Your task to perform on an android device: Open Wikipedia Image 0: 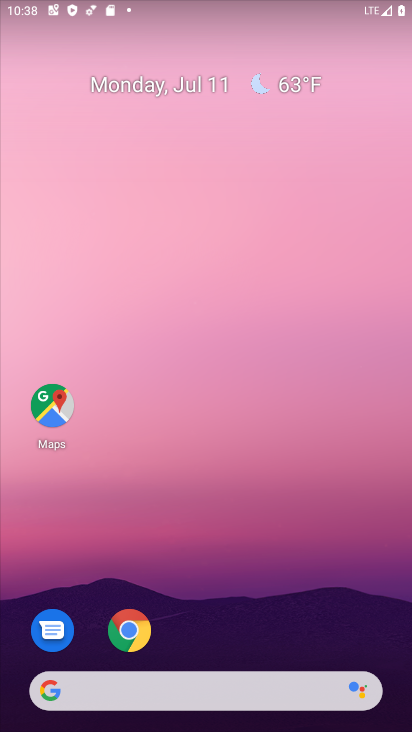
Step 0: click (126, 631)
Your task to perform on an android device: Open Wikipedia Image 1: 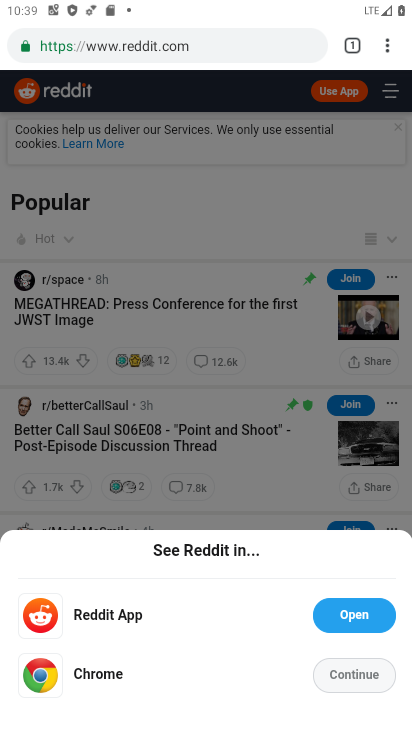
Step 1: click (203, 42)
Your task to perform on an android device: Open Wikipedia Image 2: 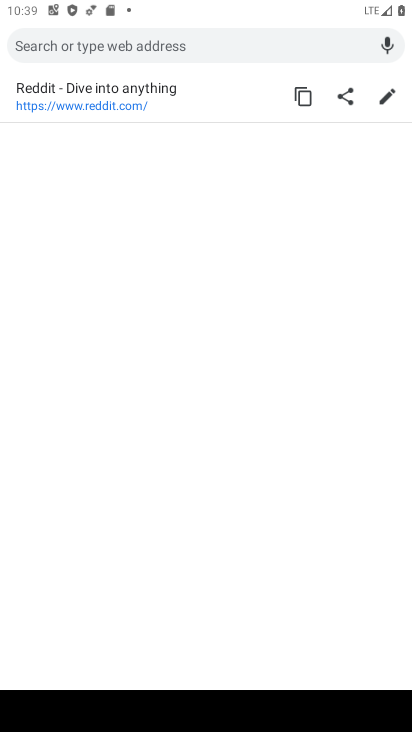
Step 2: type "Wikipedia"
Your task to perform on an android device: Open Wikipedia Image 3: 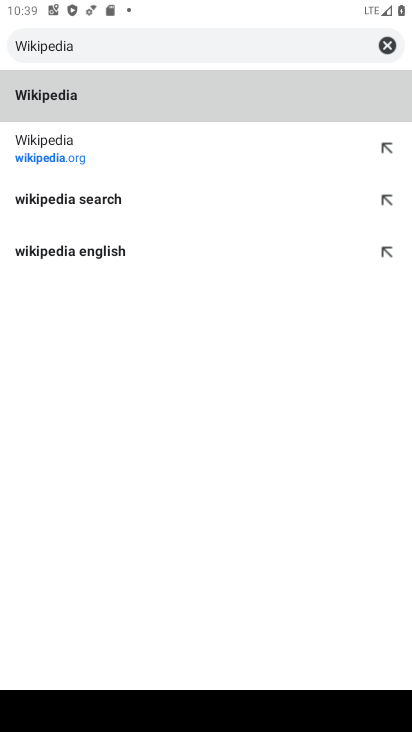
Step 3: click (53, 150)
Your task to perform on an android device: Open Wikipedia Image 4: 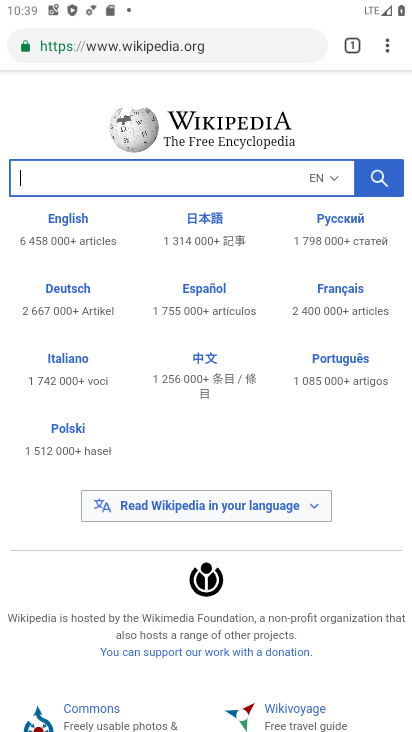
Step 4: task complete